Your task to perform on an android device: check storage Image 0: 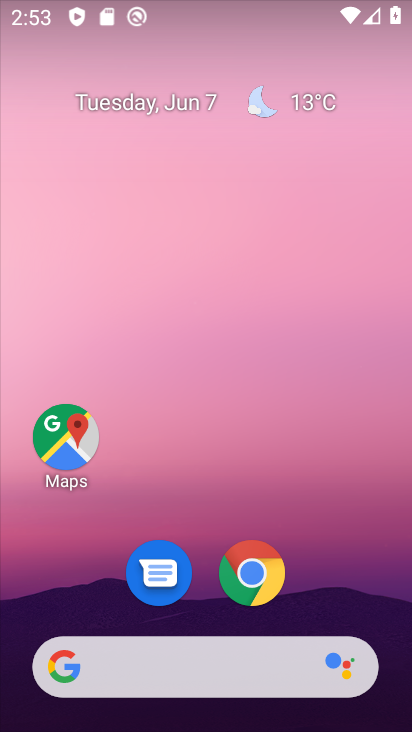
Step 0: drag from (32, 671) to (374, 74)
Your task to perform on an android device: check storage Image 1: 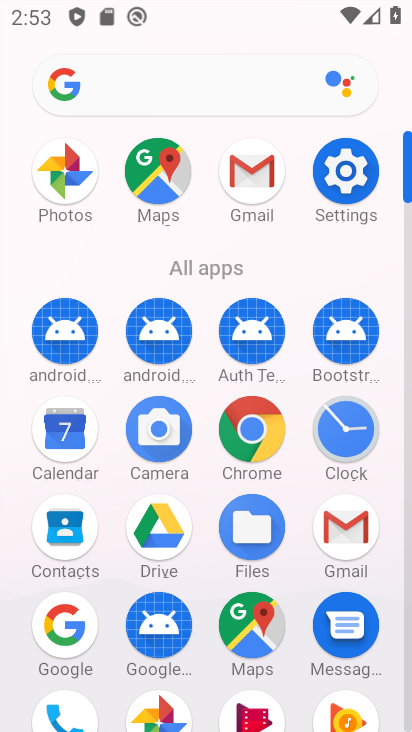
Step 1: click (325, 173)
Your task to perform on an android device: check storage Image 2: 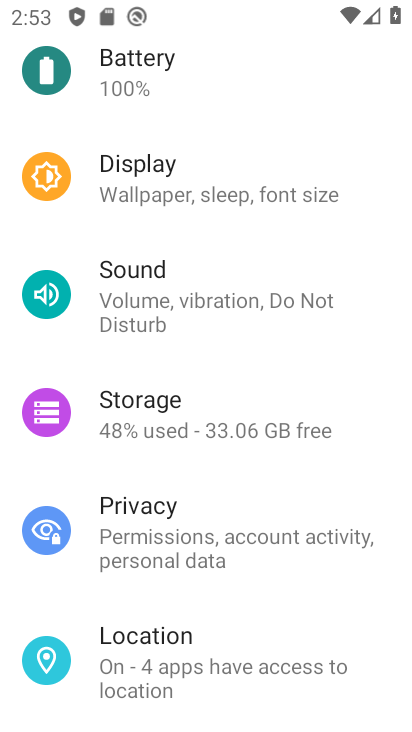
Step 2: click (122, 420)
Your task to perform on an android device: check storage Image 3: 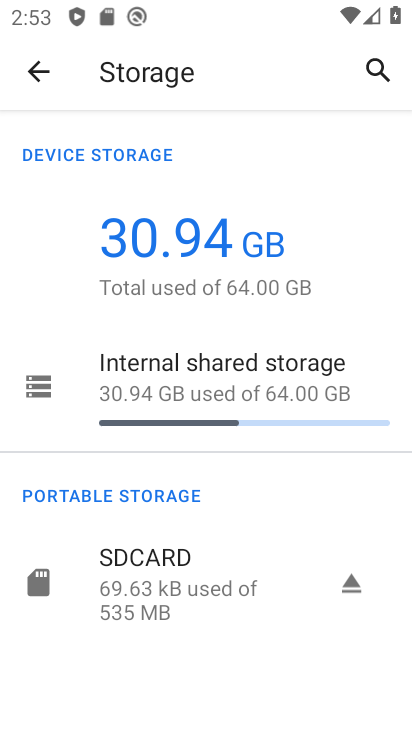
Step 3: task complete